Your task to perform on an android device: Open Google Chrome and click the shortcut for Amazon.com Image 0: 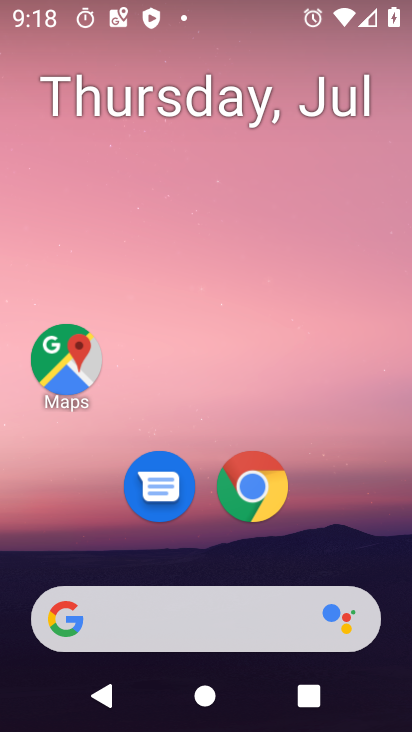
Step 0: drag from (249, 604) to (297, 168)
Your task to perform on an android device: Open Google Chrome and click the shortcut for Amazon.com Image 1: 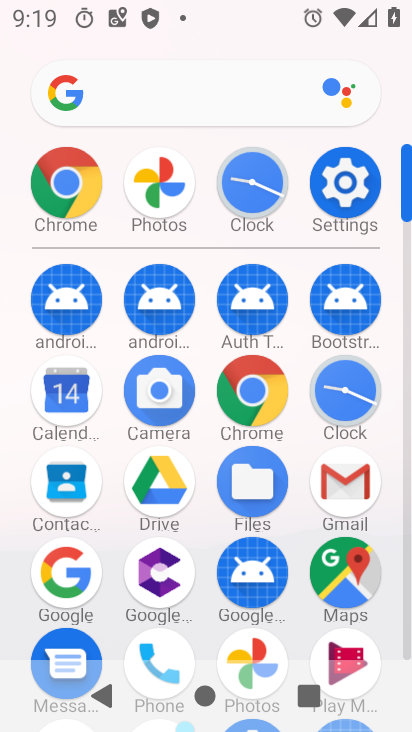
Step 1: click (263, 405)
Your task to perform on an android device: Open Google Chrome and click the shortcut for Amazon.com Image 2: 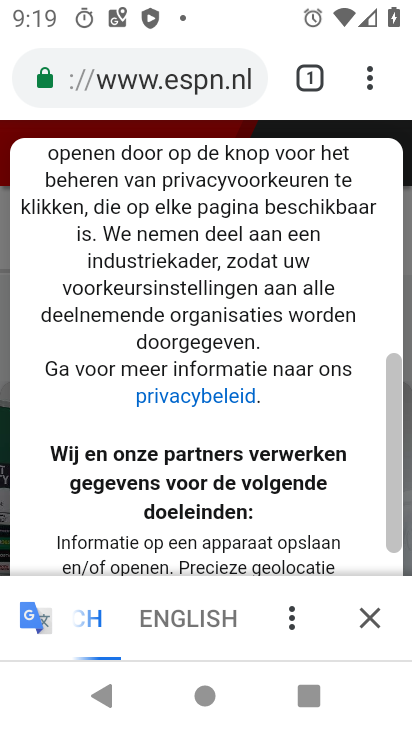
Step 2: drag from (309, 79) to (307, 195)
Your task to perform on an android device: Open Google Chrome and click the shortcut for Amazon.com Image 3: 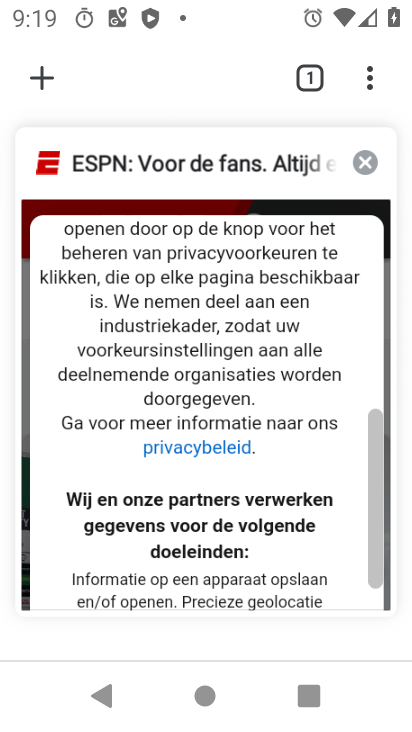
Step 3: click (54, 78)
Your task to perform on an android device: Open Google Chrome and click the shortcut for Amazon.com Image 4: 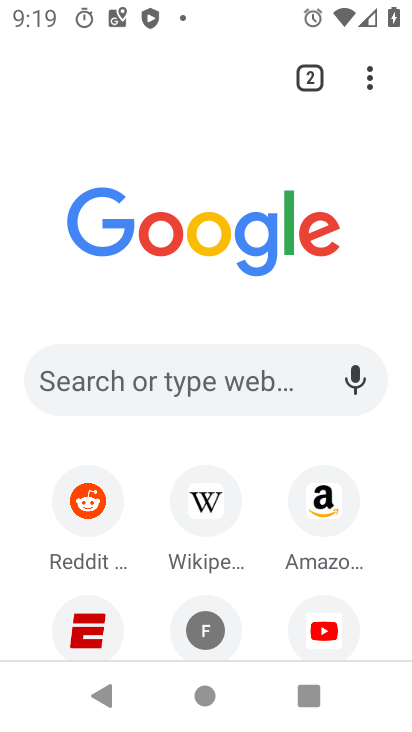
Step 4: click (305, 526)
Your task to perform on an android device: Open Google Chrome and click the shortcut for Amazon.com Image 5: 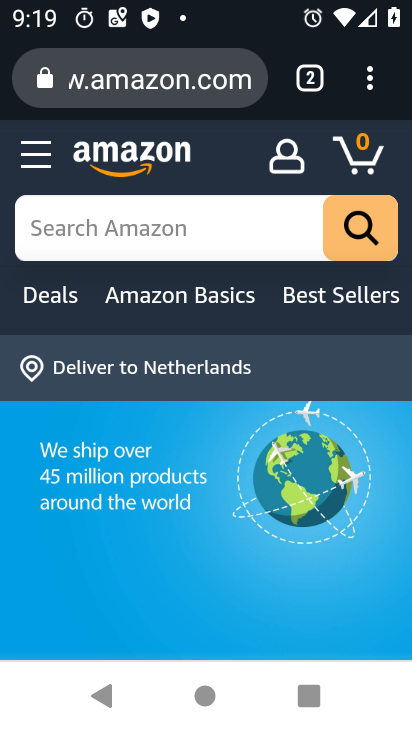
Step 5: task complete